Your task to perform on an android device: open the mobile data screen to see how much data has been used Image 0: 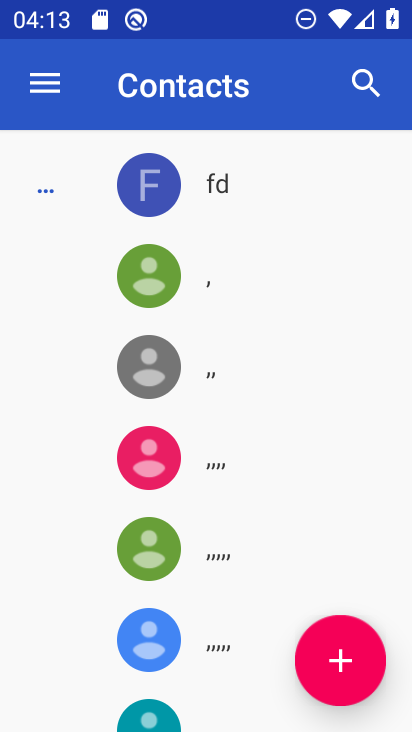
Step 0: press home button
Your task to perform on an android device: open the mobile data screen to see how much data has been used Image 1: 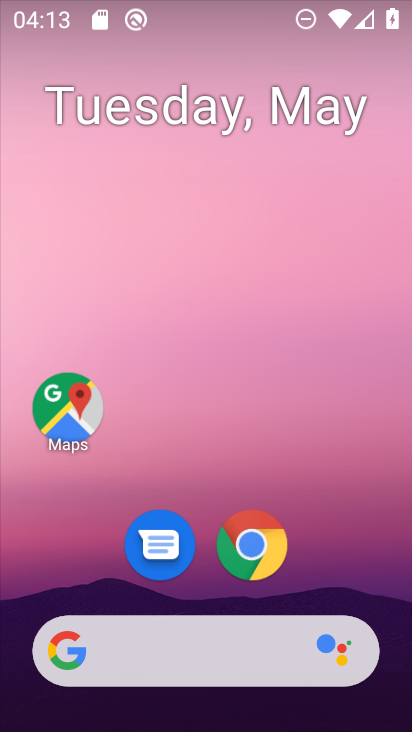
Step 1: drag from (393, 630) to (368, 65)
Your task to perform on an android device: open the mobile data screen to see how much data has been used Image 2: 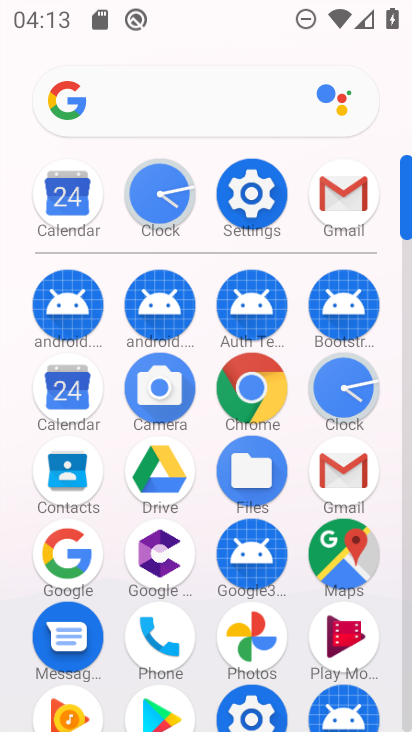
Step 2: click (409, 692)
Your task to perform on an android device: open the mobile data screen to see how much data has been used Image 3: 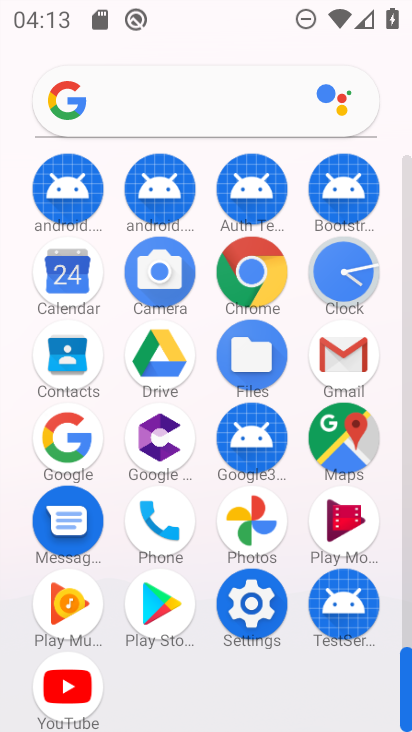
Step 3: click (251, 600)
Your task to perform on an android device: open the mobile data screen to see how much data has been used Image 4: 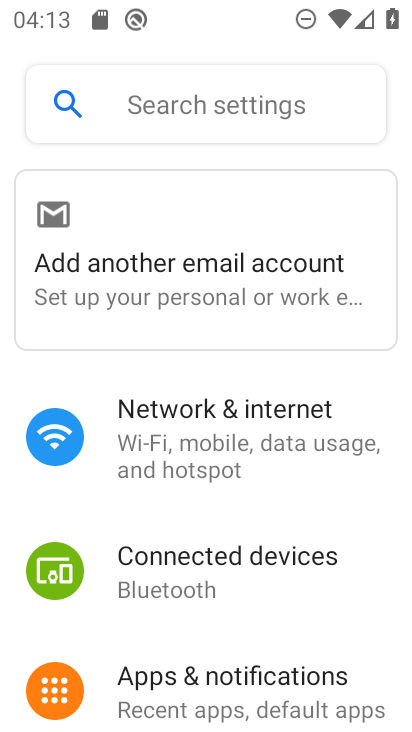
Step 4: click (176, 437)
Your task to perform on an android device: open the mobile data screen to see how much data has been used Image 5: 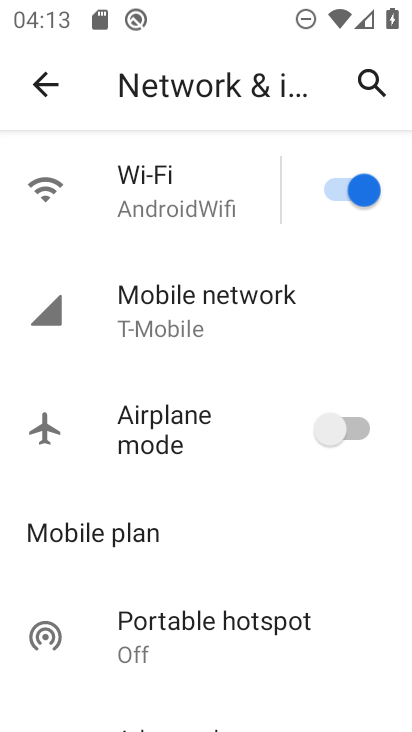
Step 5: click (171, 306)
Your task to perform on an android device: open the mobile data screen to see how much data has been used Image 6: 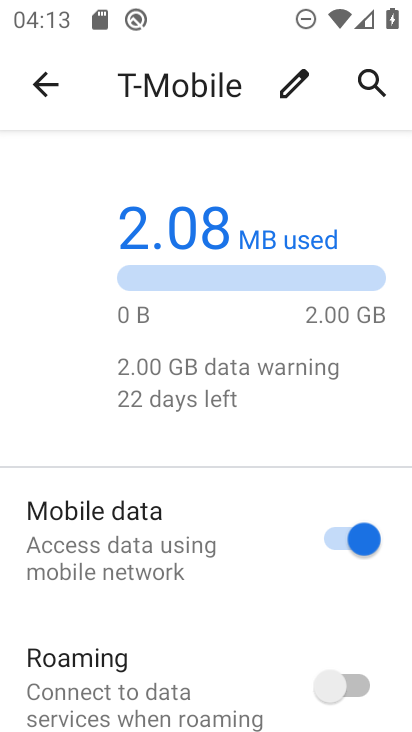
Step 6: task complete